Your task to perform on an android device: Open settings on Google Maps Image 0: 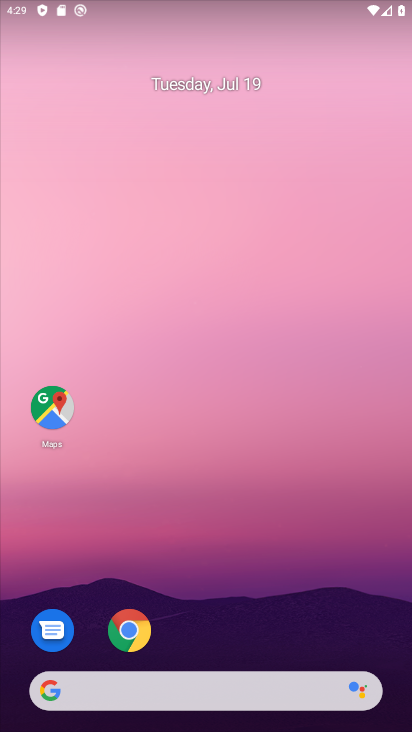
Step 0: drag from (244, 630) to (211, 213)
Your task to perform on an android device: Open settings on Google Maps Image 1: 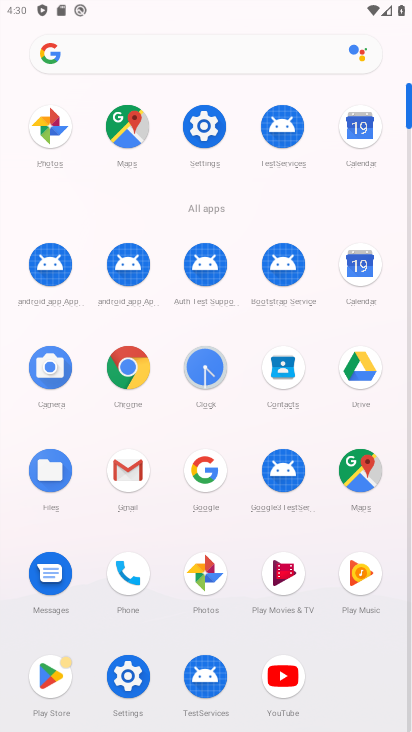
Step 1: click (373, 475)
Your task to perform on an android device: Open settings on Google Maps Image 2: 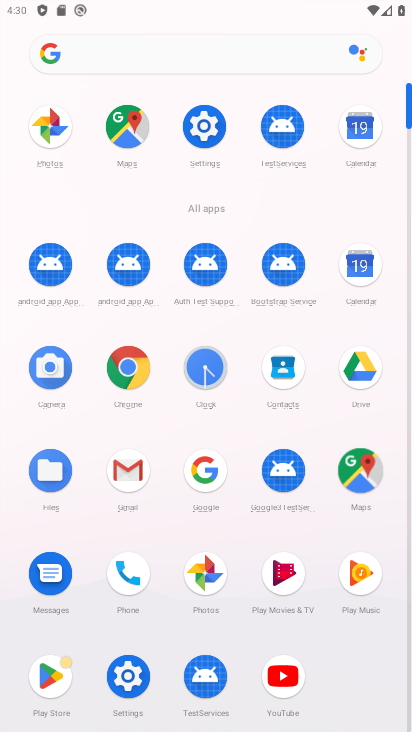
Step 2: click (369, 475)
Your task to perform on an android device: Open settings on Google Maps Image 3: 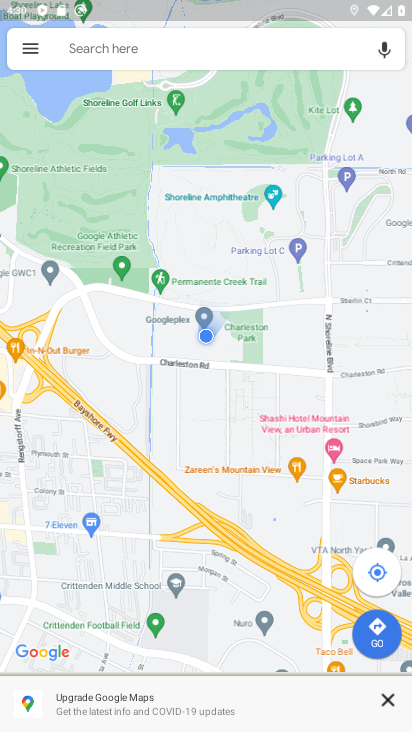
Step 3: click (29, 58)
Your task to perform on an android device: Open settings on Google Maps Image 4: 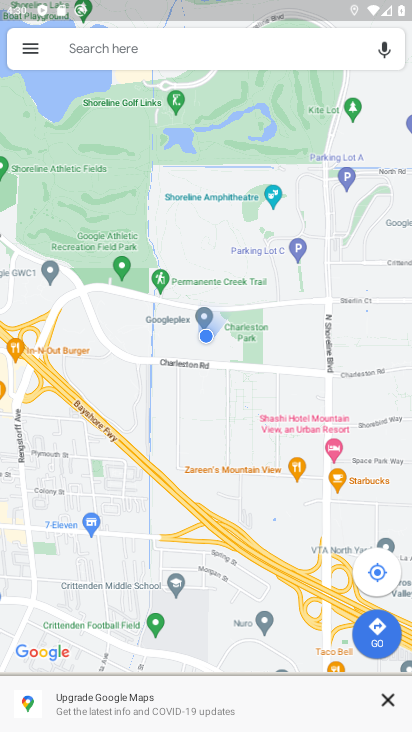
Step 4: click (36, 51)
Your task to perform on an android device: Open settings on Google Maps Image 5: 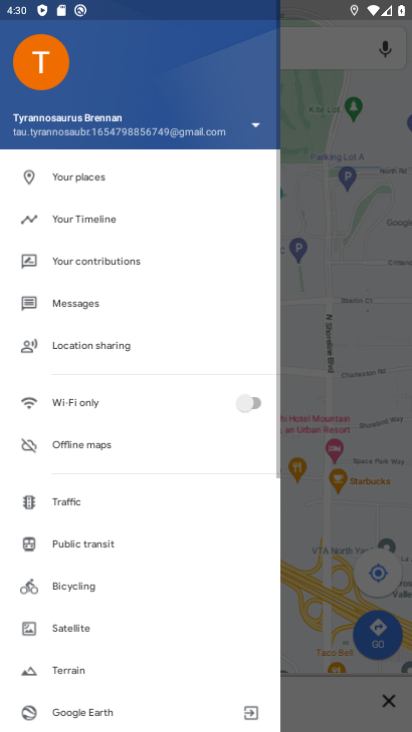
Step 5: click (80, 226)
Your task to perform on an android device: Open settings on Google Maps Image 6: 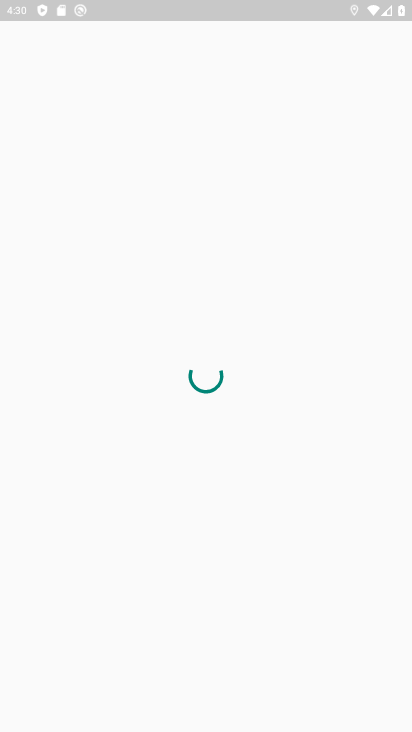
Step 6: click (81, 225)
Your task to perform on an android device: Open settings on Google Maps Image 7: 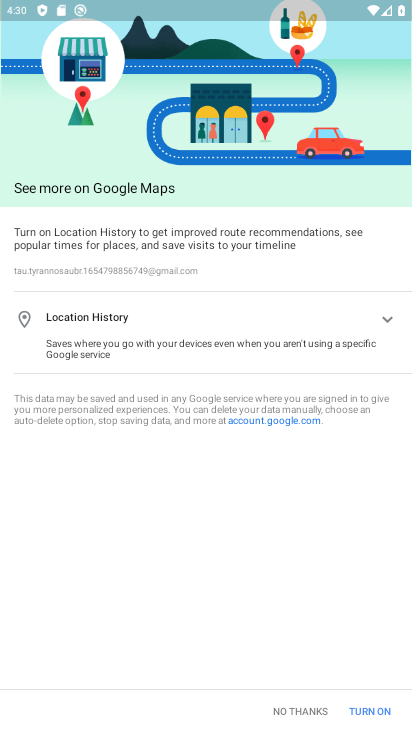
Step 7: click (292, 707)
Your task to perform on an android device: Open settings on Google Maps Image 8: 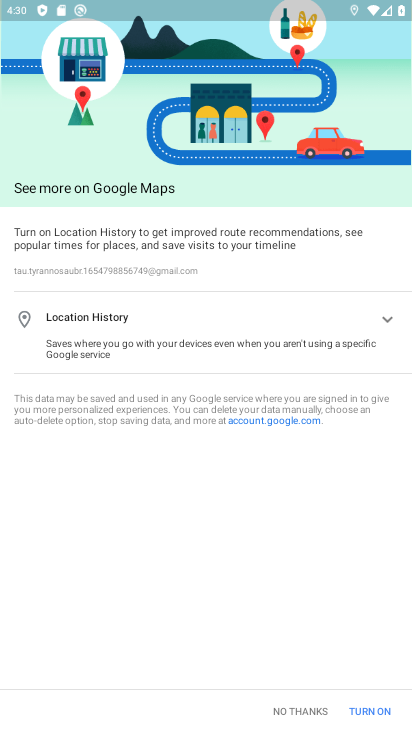
Step 8: click (292, 707)
Your task to perform on an android device: Open settings on Google Maps Image 9: 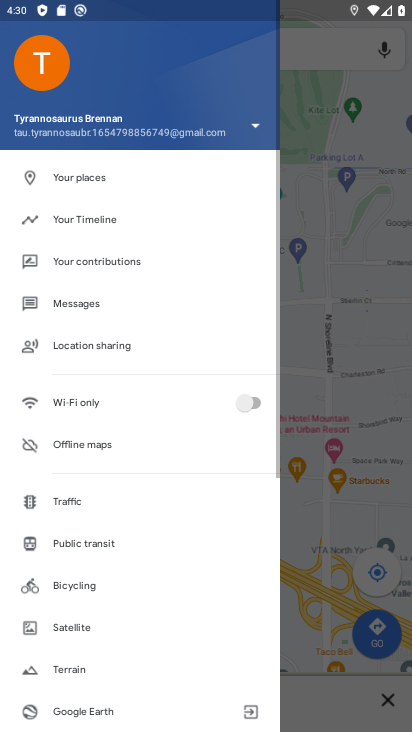
Step 9: click (103, 217)
Your task to perform on an android device: Open settings on Google Maps Image 10: 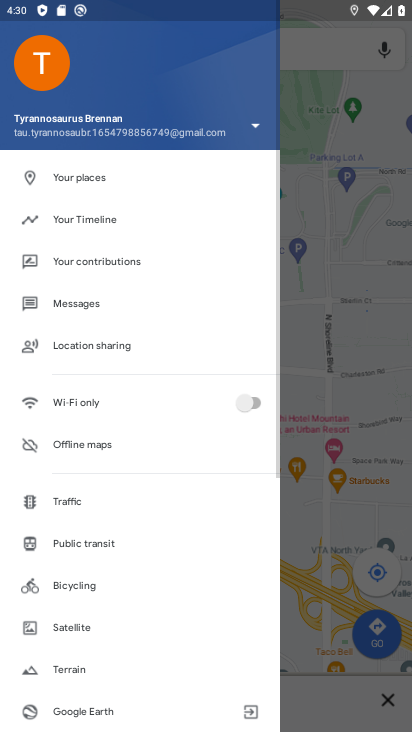
Step 10: click (116, 210)
Your task to perform on an android device: Open settings on Google Maps Image 11: 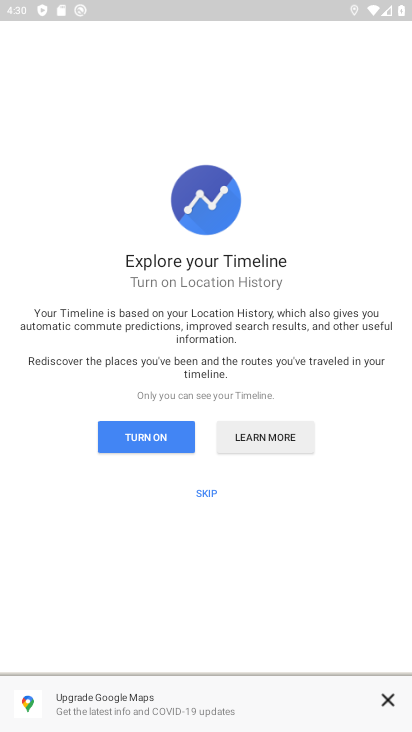
Step 11: click (268, 427)
Your task to perform on an android device: Open settings on Google Maps Image 12: 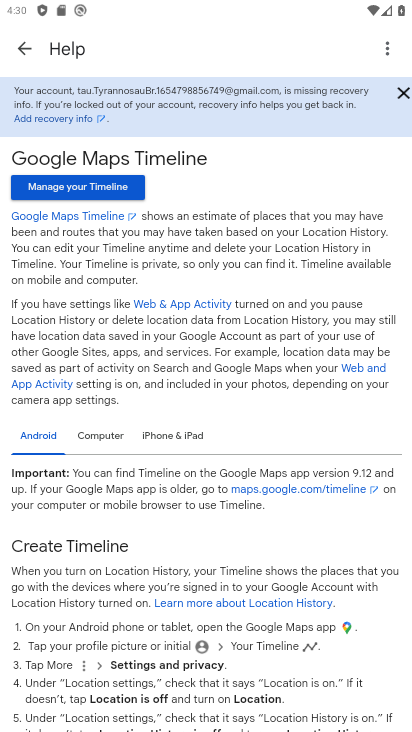
Step 12: click (28, 50)
Your task to perform on an android device: Open settings on Google Maps Image 13: 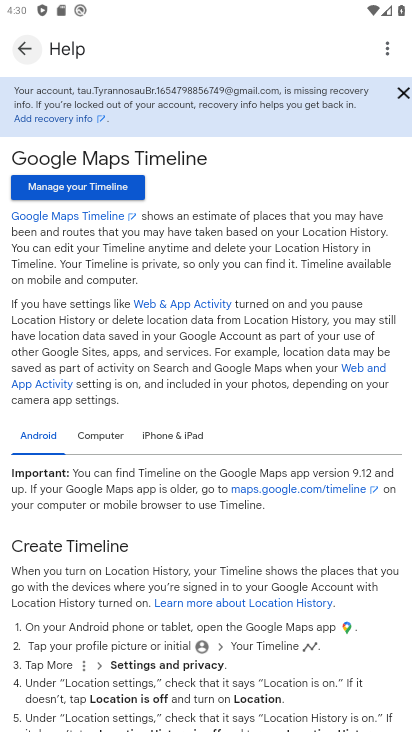
Step 13: click (28, 49)
Your task to perform on an android device: Open settings on Google Maps Image 14: 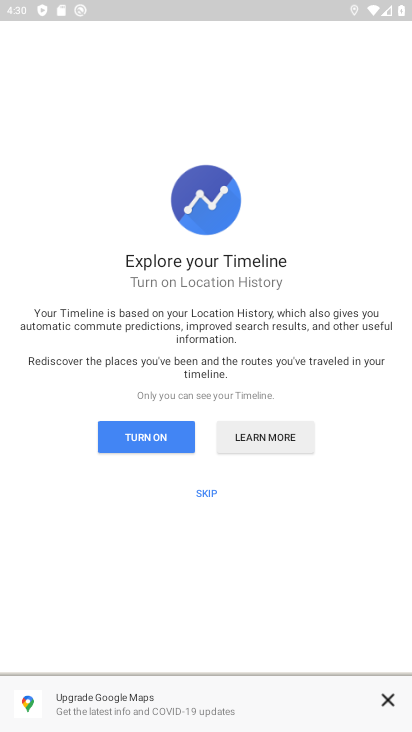
Step 14: click (195, 488)
Your task to perform on an android device: Open settings on Google Maps Image 15: 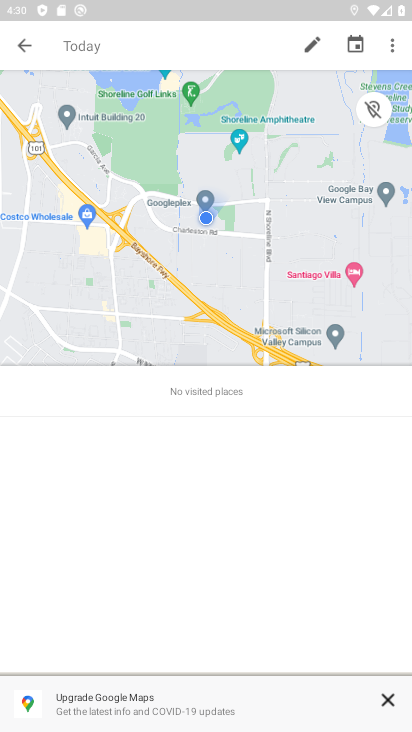
Step 15: click (392, 51)
Your task to perform on an android device: Open settings on Google Maps Image 16: 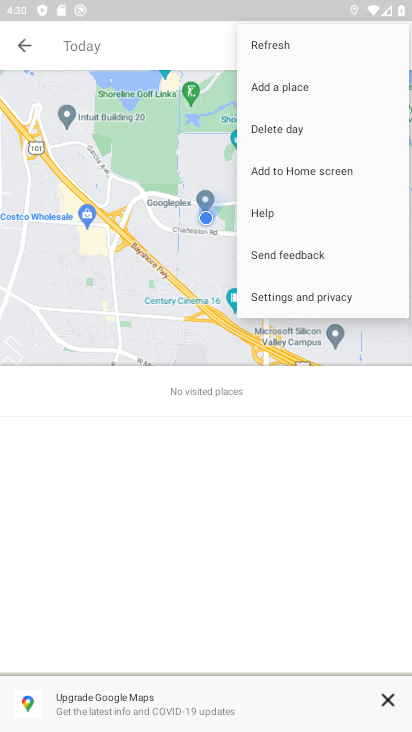
Step 16: click (276, 293)
Your task to perform on an android device: Open settings on Google Maps Image 17: 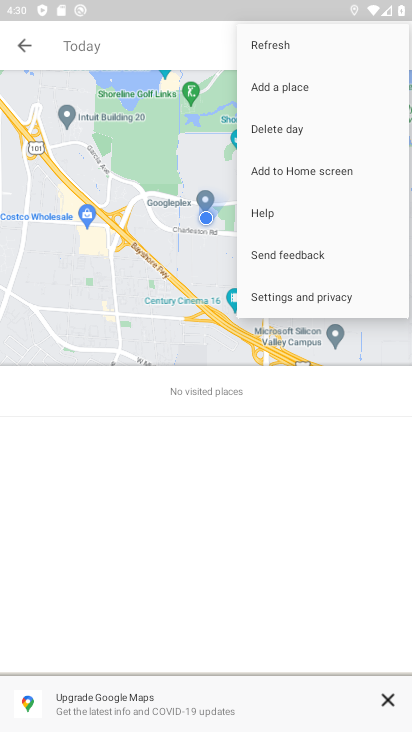
Step 17: click (276, 293)
Your task to perform on an android device: Open settings on Google Maps Image 18: 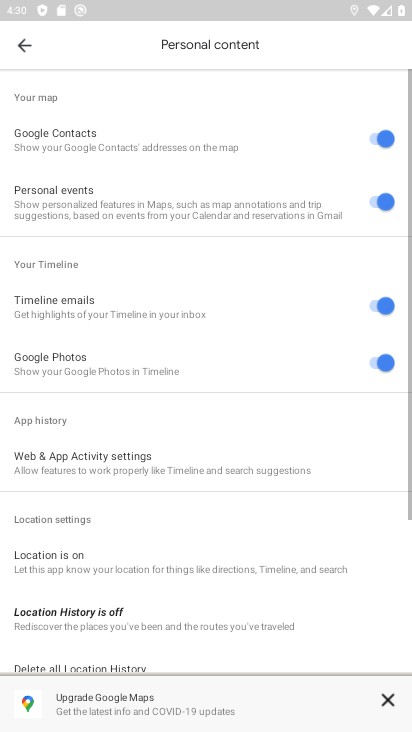
Step 18: task complete